Your task to perform on an android device: Open Yahoo.com Image 0: 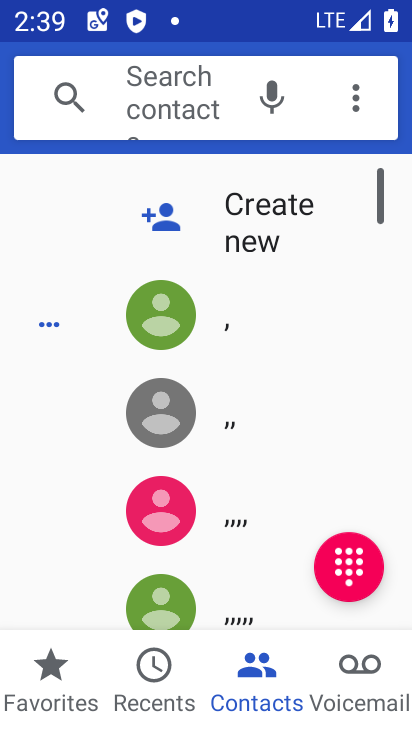
Step 0: press back button
Your task to perform on an android device: Open Yahoo.com Image 1: 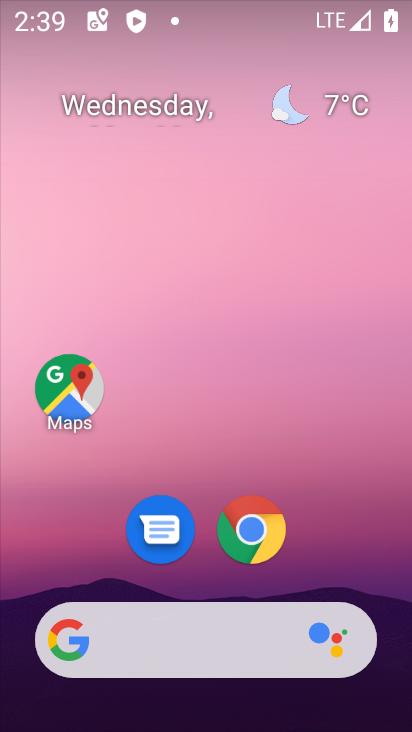
Step 1: click (256, 509)
Your task to perform on an android device: Open Yahoo.com Image 2: 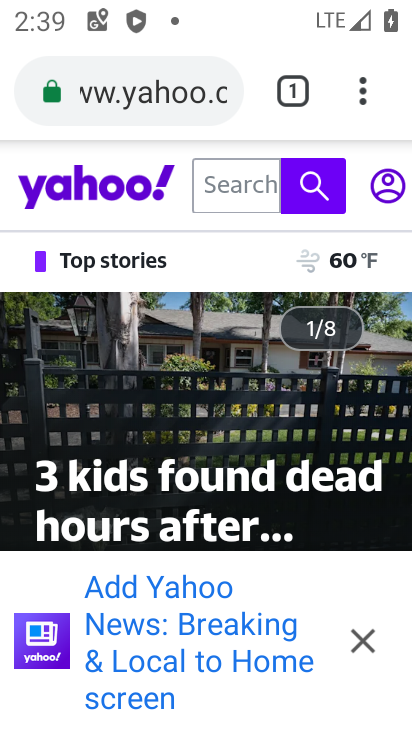
Step 2: task complete